Your task to perform on an android device: Is it going to rain tomorrow? Image 0: 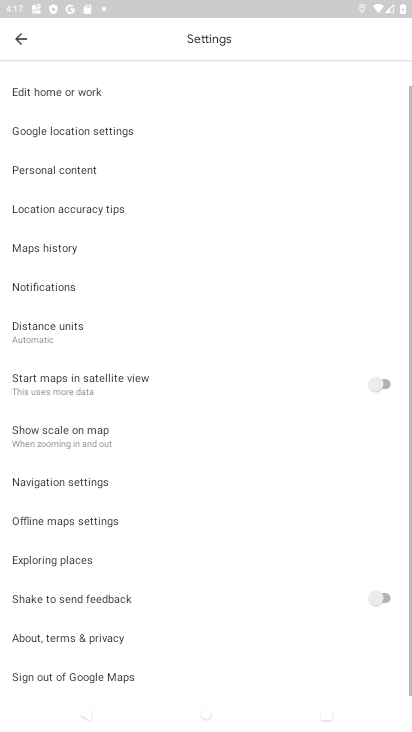
Step 0: press home button
Your task to perform on an android device: Is it going to rain tomorrow? Image 1: 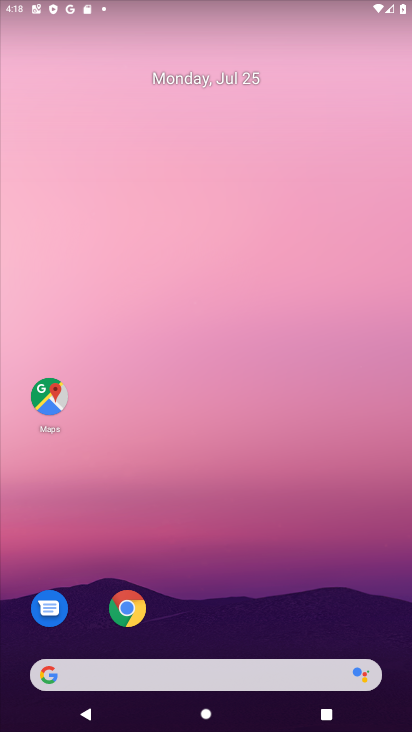
Step 1: click (187, 667)
Your task to perform on an android device: Is it going to rain tomorrow? Image 2: 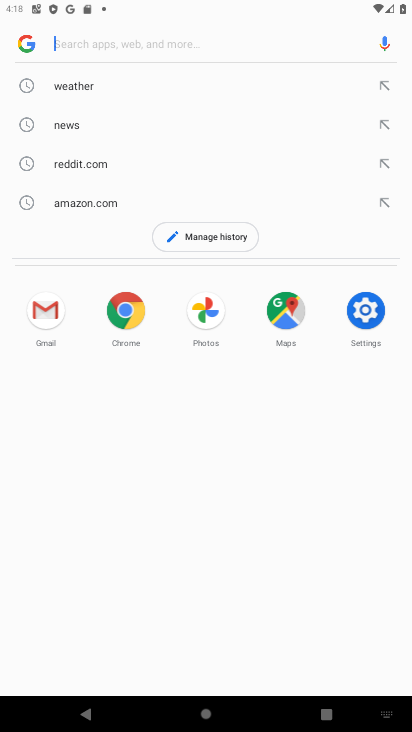
Step 2: click (107, 81)
Your task to perform on an android device: Is it going to rain tomorrow? Image 3: 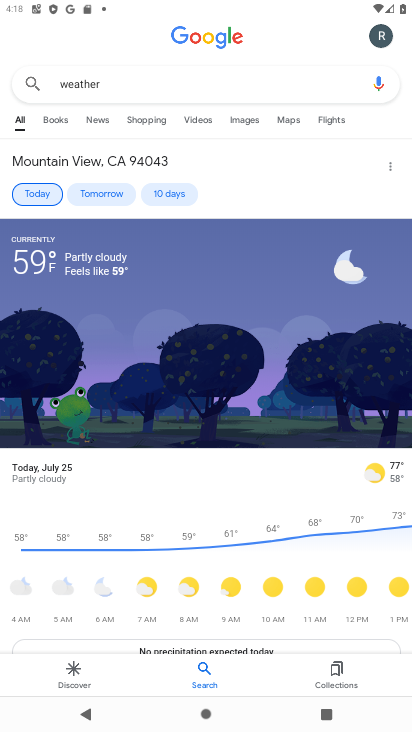
Step 3: task complete